Your task to perform on an android device: turn off picture-in-picture Image 0: 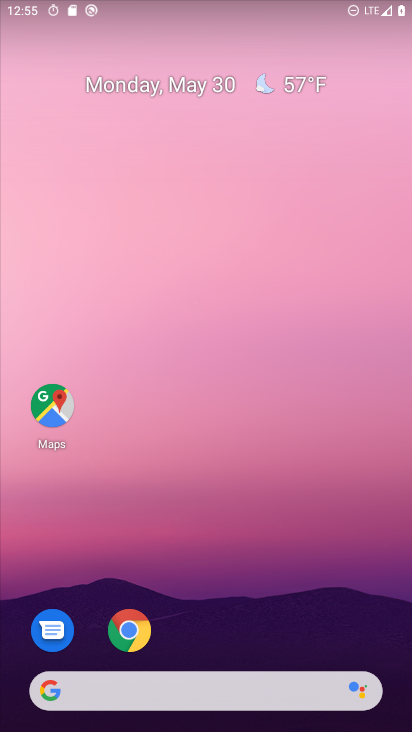
Step 0: press home button
Your task to perform on an android device: turn off picture-in-picture Image 1: 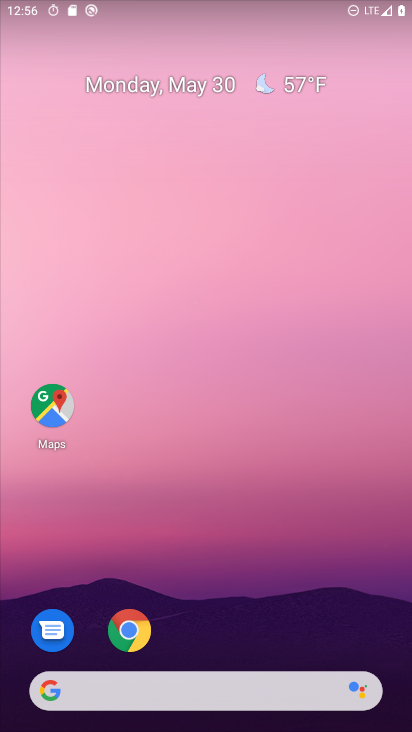
Step 1: drag from (229, 720) to (327, 95)
Your task to perform on an android device: turn off picture-in-picture Image 2: 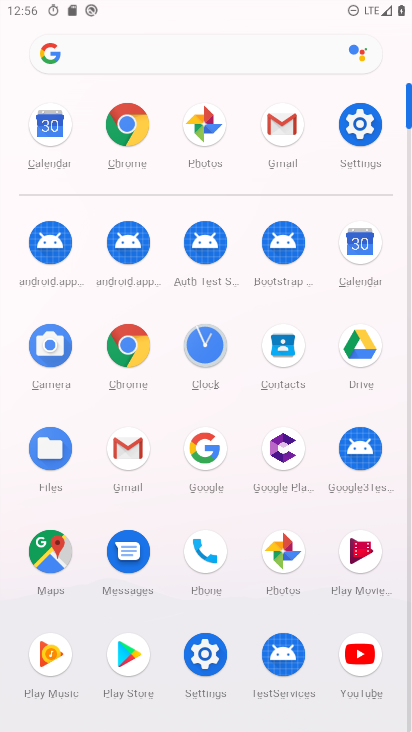
Step 2: click (360, 142)
Your task to perform on an android device: turn off picture-in-picture Image 3: 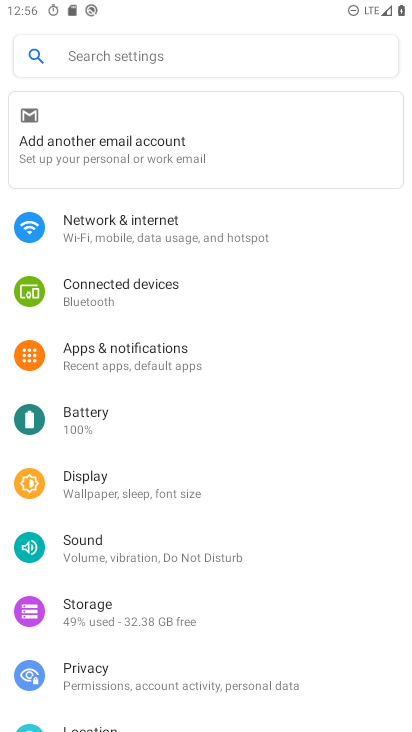
Step 3: click (120, 50)
Your task to perform on an android device: turn off picture-in-picture Image 4: 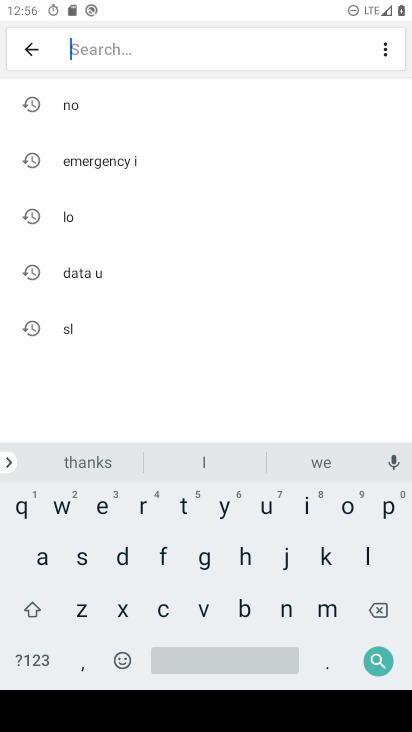
Step 4: click (385, 502)
Your task to perform on an android device: turn off picture-in-picture Image 5: 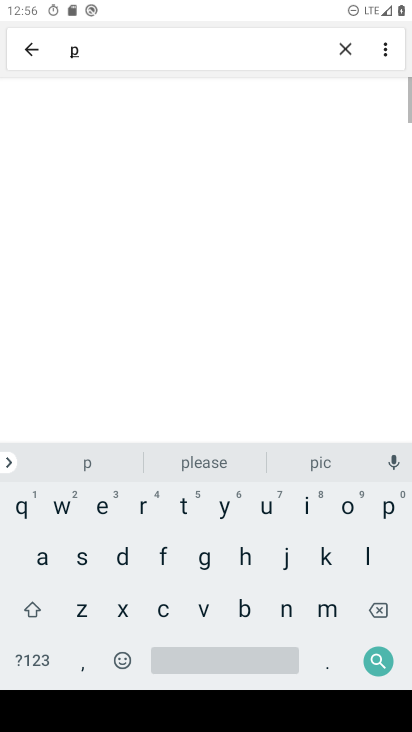
Step 5: click (307, 501)
Your task to perform on an android device: turn off picture-in-picture Image 6: 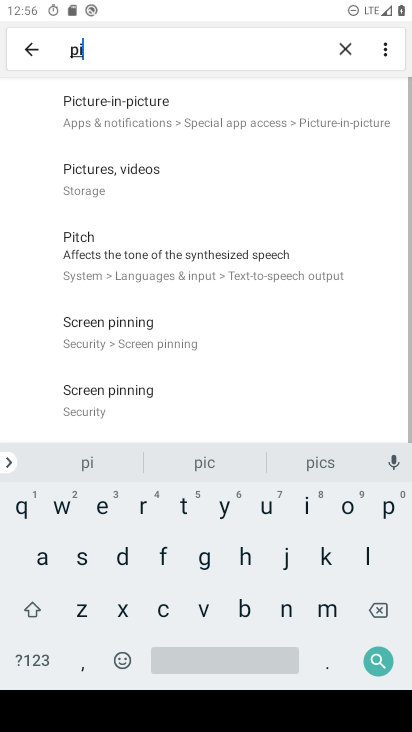
Step 6: click (153, 618)
Your task to perform on an android device: turn off picture-in-picture Image 7: 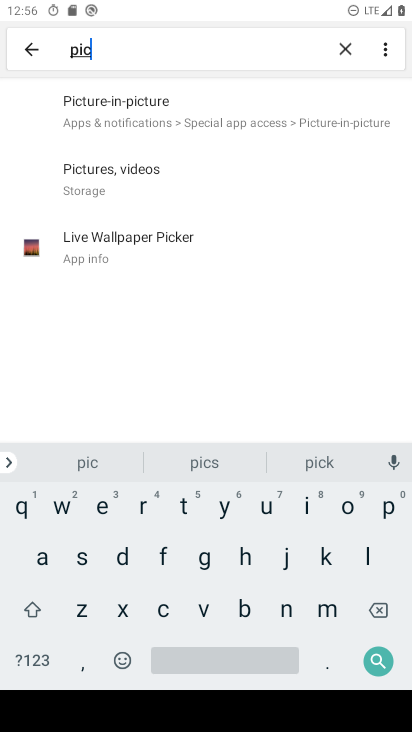
Step 7: click (168, 133)
Your task to perform on an android device: turn off picture-in-picture Image 8: 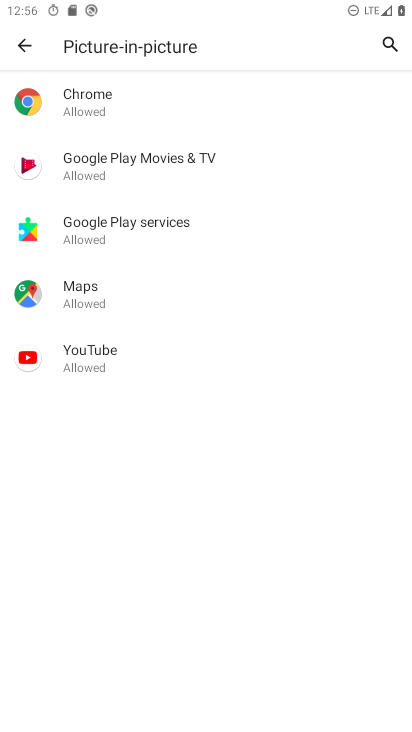
Step 8: task complete